Your task to perform on an android device: turn pop-ups off in chrome Image 0: 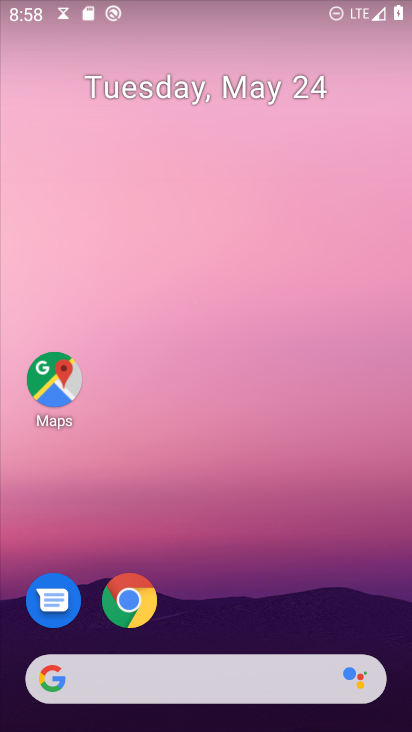
Step 0: click (115, 598)
Your task to perform on an android device: turn pop-ups off in chrome Image 1: 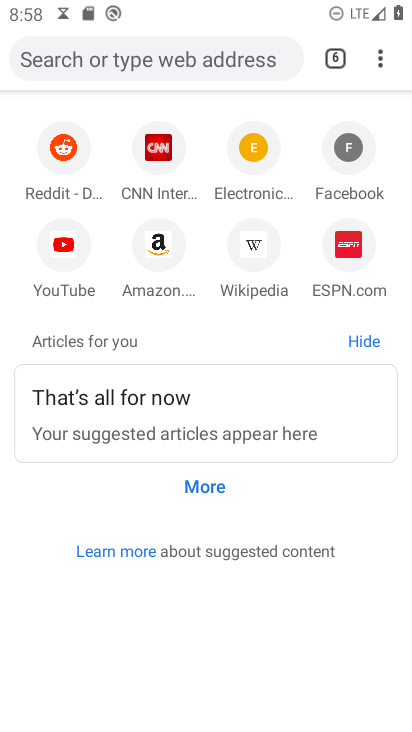
Step 1: drag from (379, 56) to (204, 484)
Your task to perform on an android device: turn pop-ups off in chrome Image 2: 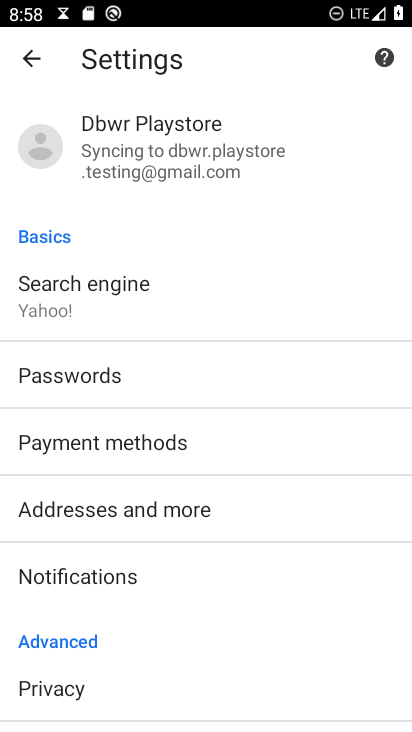
Step 2: drag from (147, 640) to (230, 179)
Your task to perform on an android device: turn pop-ups off in chrome Image 3: 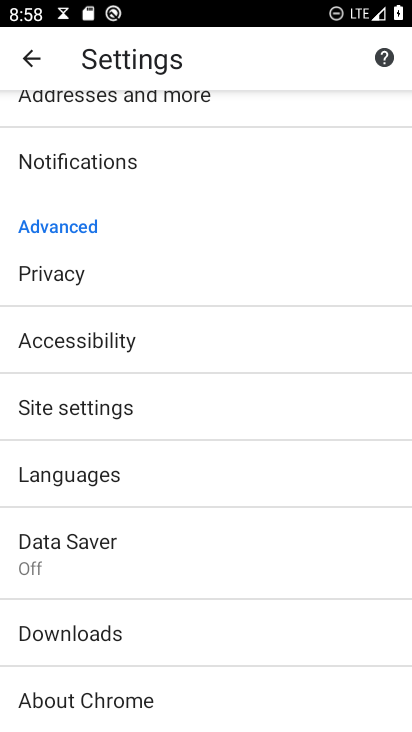
Step 3: click (113, 410)
Your task to perform on an android device: turn pop-ups off in chrome Image 4: 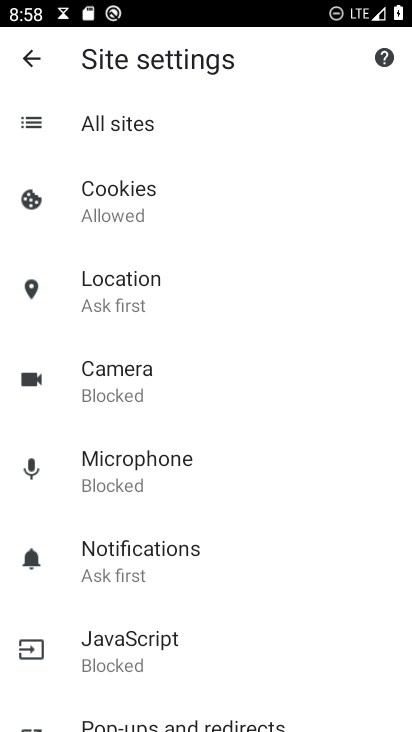
Step 4: click (144, 722)
Your task to perform on an android device: turn pop-ups off in chrome Image 5: 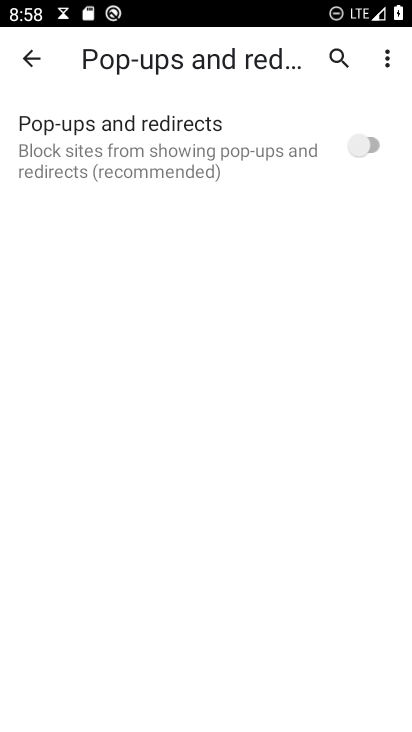
Step 5: task complete